Your task to perform on an android device: turn pop-ups off in chrome Image 0: 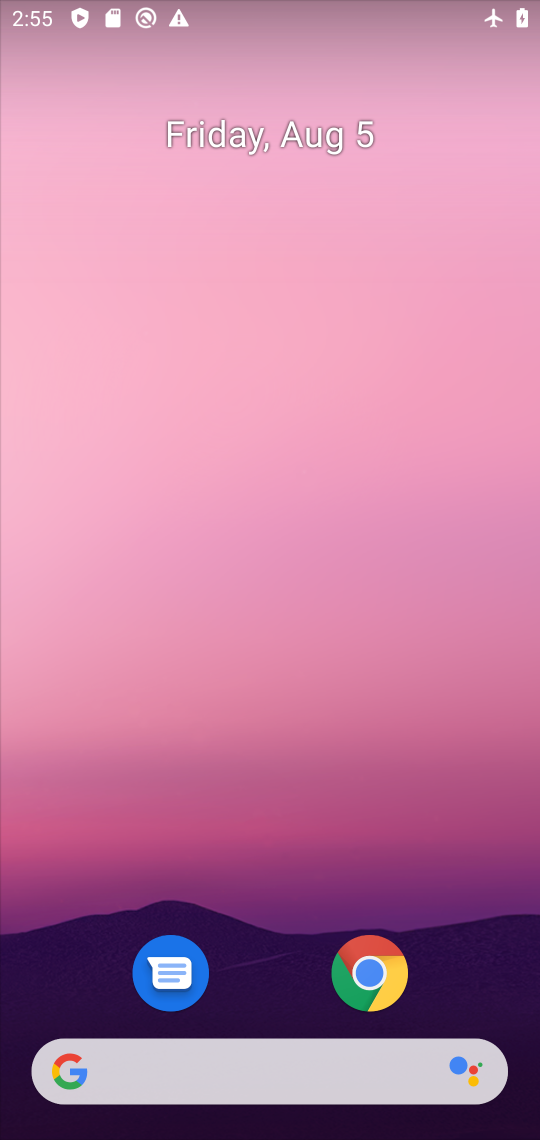
Step 0: click (335, 975)
Your task to perform on an android device: turn pop-ups off in chrome Image 1: 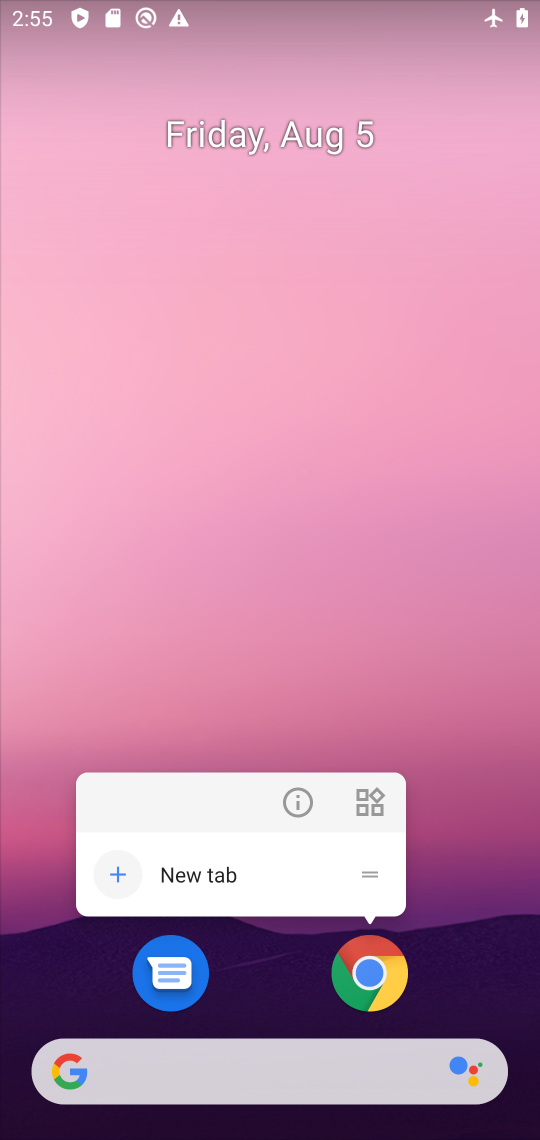
Step 1: click (356, 993)
Your task to perform on an android device: turn pop-ups off in chrome Image 2: 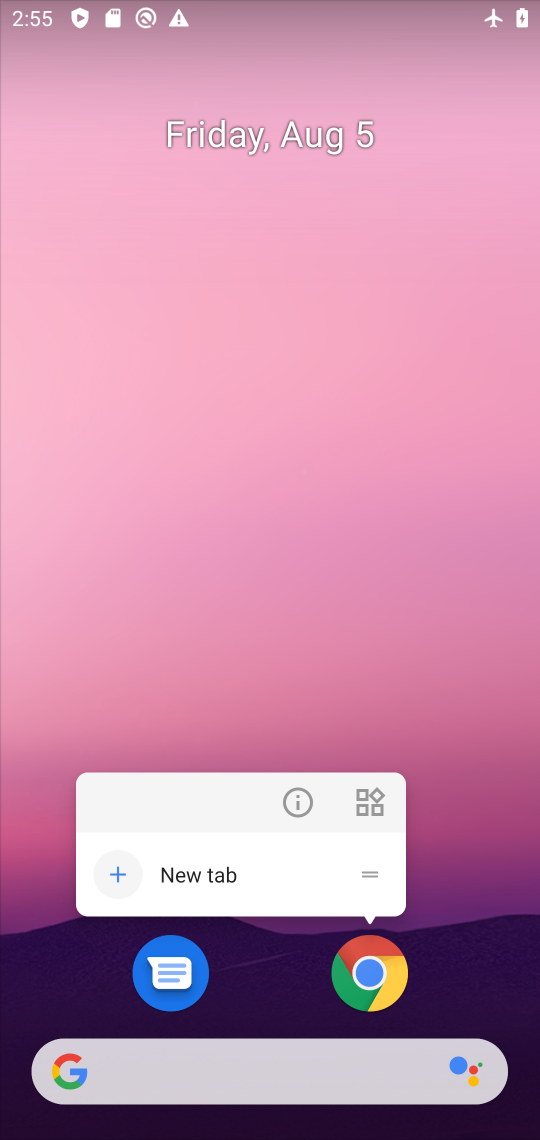
Step 2: click (387, 977)
Your task to perform on an android device: turn pop-ups off in chrome Image 3: 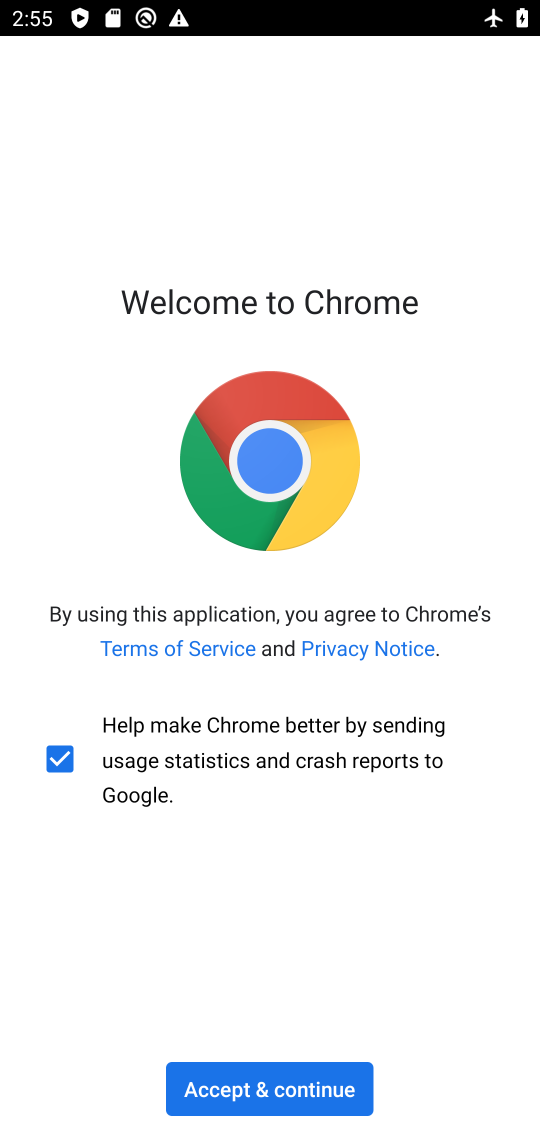
Step 3: click (310, 1095)
Your task to perform on an android device: turn pop-ups off in chrome Image 4: 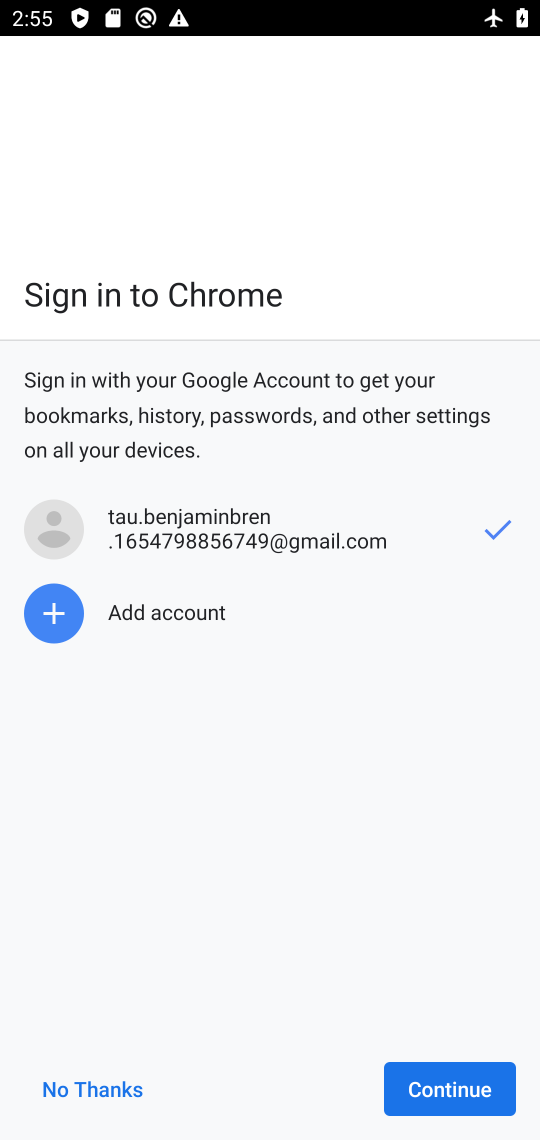
Step 4: click (500, 1097)
Your task to perform on an android device: turn pop-ups off in chrome Image 5: 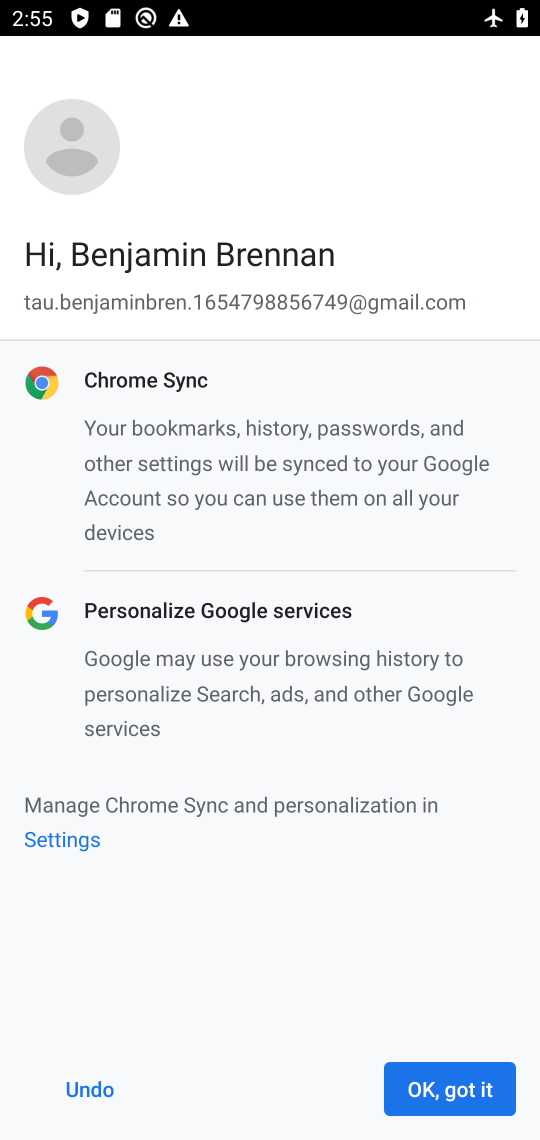
Step 5: click (500, 1097)
Your task to perform on an android device: turn pop-ups off in chrome Image 6: 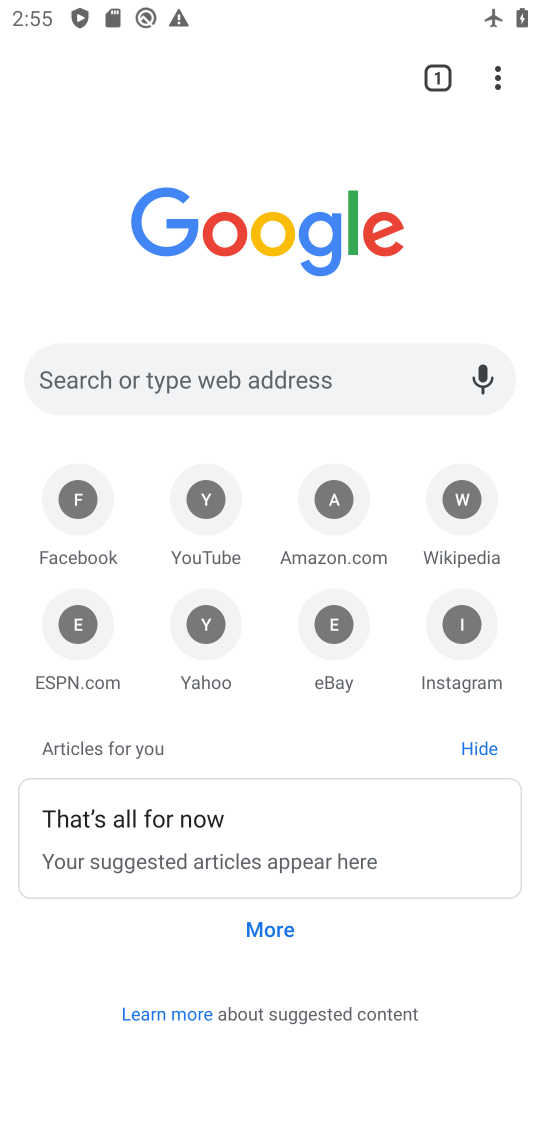
Step 6: click (494, 90)
Your task to perform on an android device: turn pop-ups off in chrome Image 7: 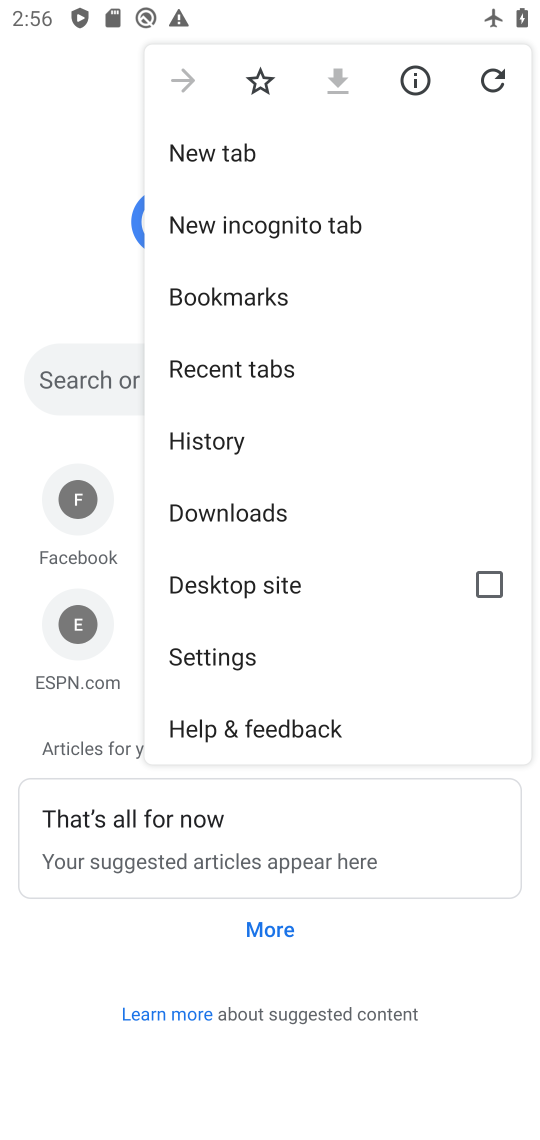
Step 7: click (166, 686)
Your task to perform on an android device: turn pop-ups off in chrome Image 8: 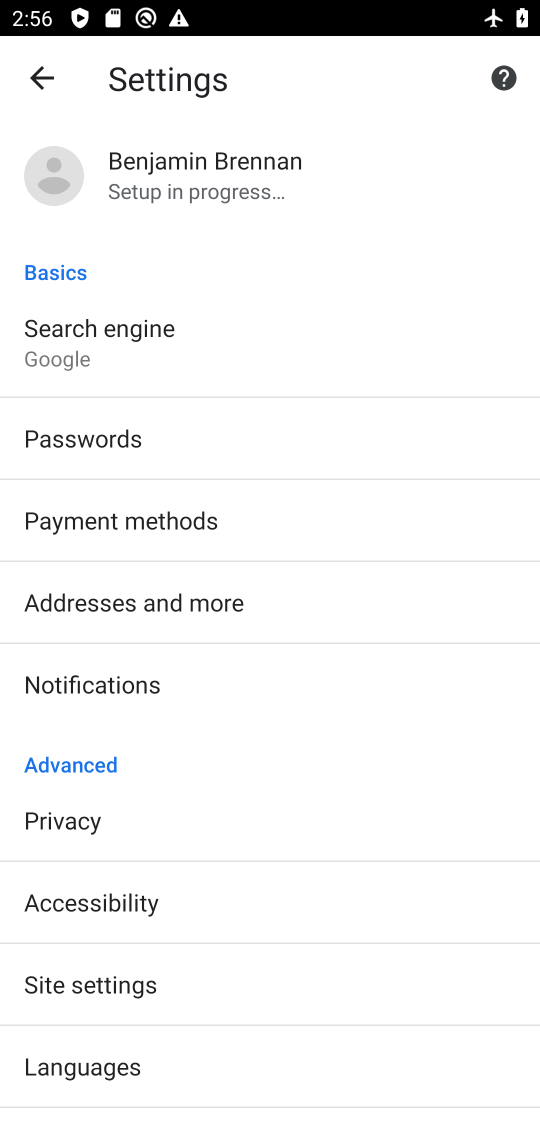
Step 8: click (139, 988)
Your task to perform on an android device: turn pop-ups off in chrome Image 9: 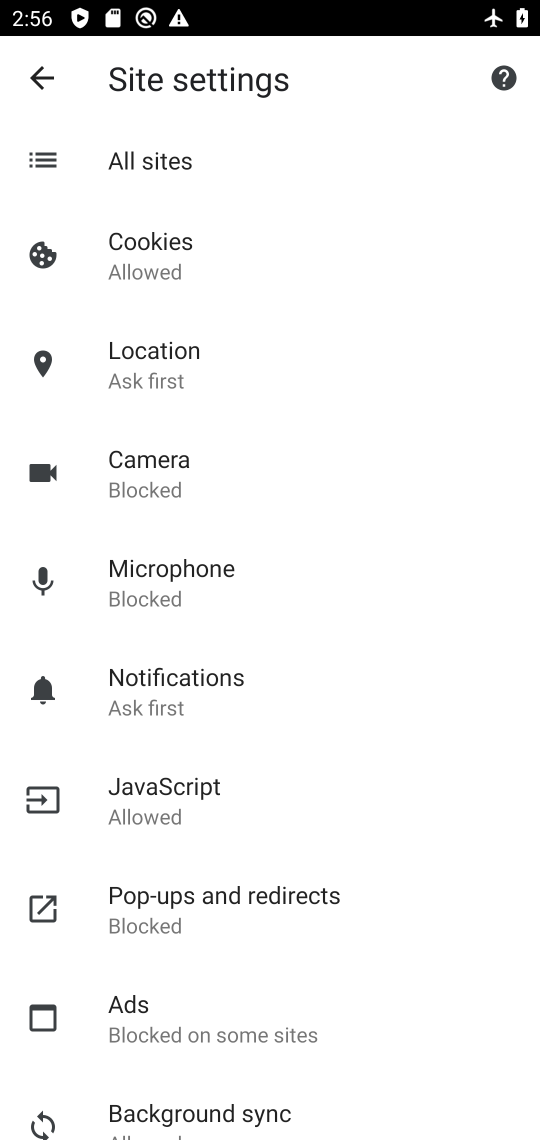
Step 9: click (200, 906)
Your task to perform on an android device: turn pop-ups off in chrome Image 10: 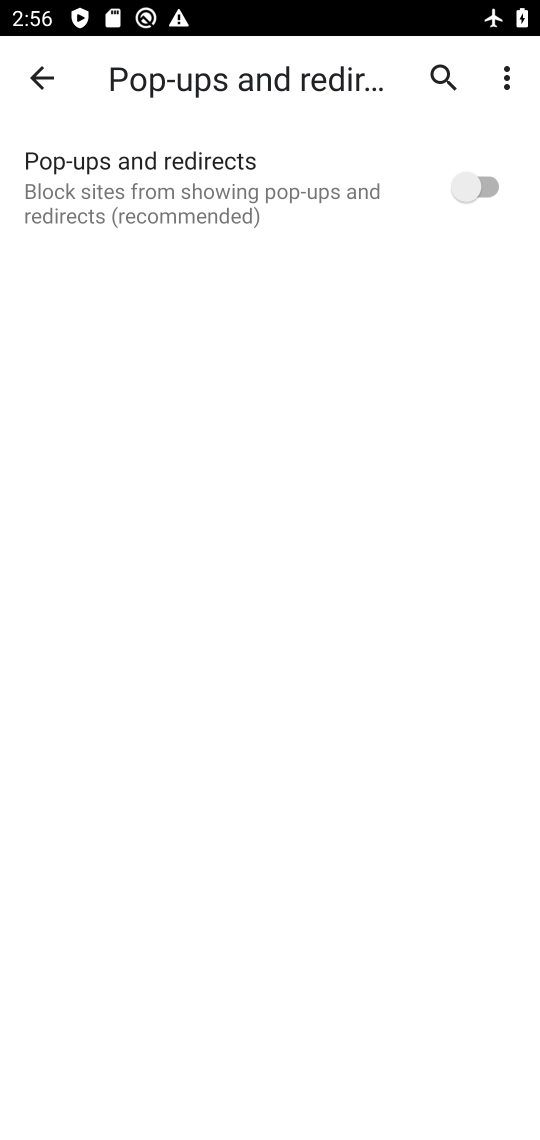
Step 10: task complete